Your task to perform on an android device: Go to Amazon Image 0: 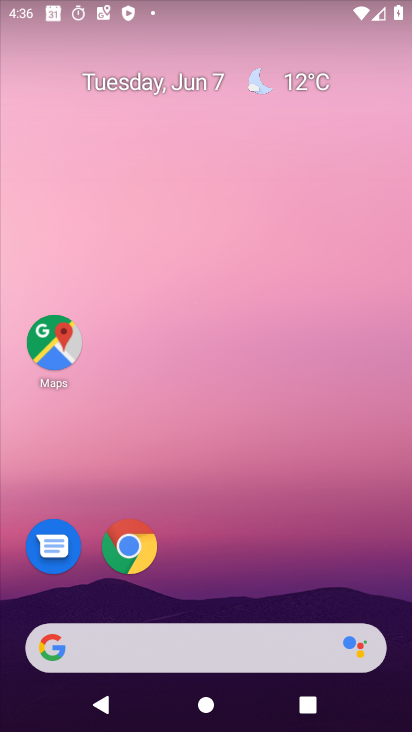
Step 0: click (139, 523)
Your task to perform on an android device: Go to Amazon Image 1: 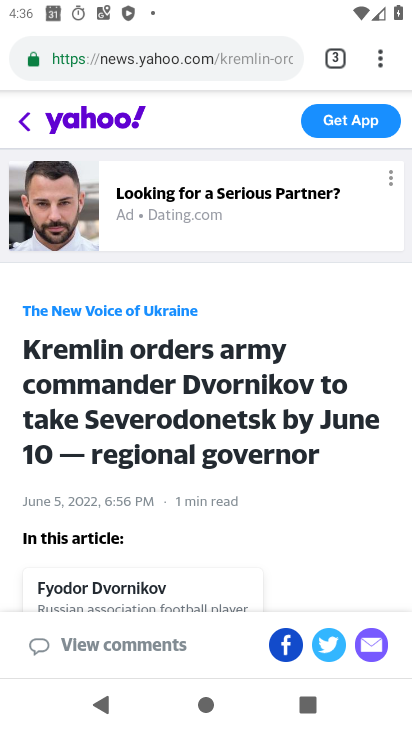
Step 1: click (343, 62)
Your task to perform on an android device: Go to Amazon Image 2: 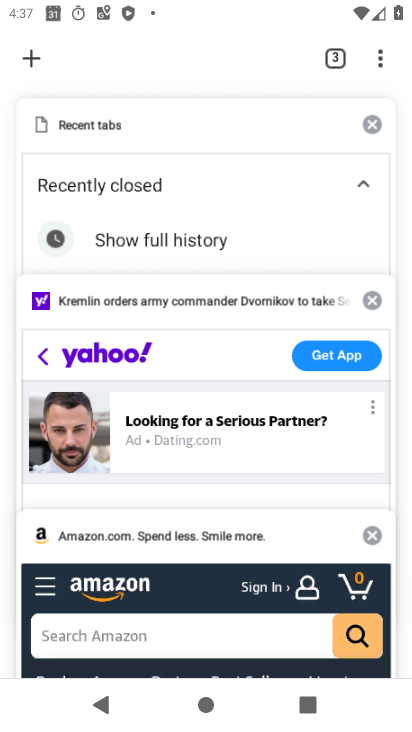
Step 2: click (193, 638)
Your task to perform on an android device: Go to Amazon Image 3: 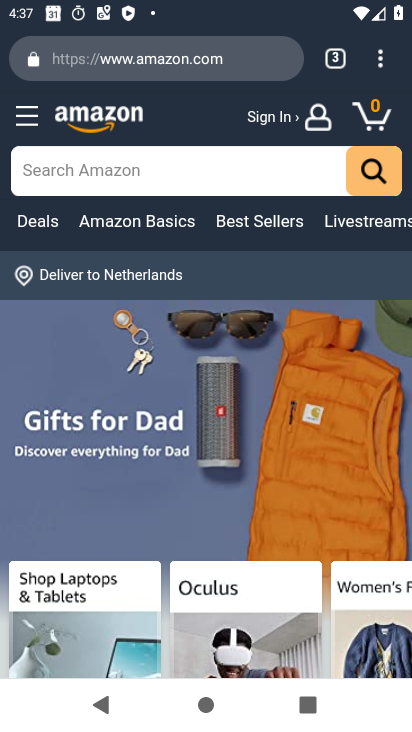
Step 3: task complete